Your task to perform on an android device: Open the phone app and click the voicemail tab. Image 0: 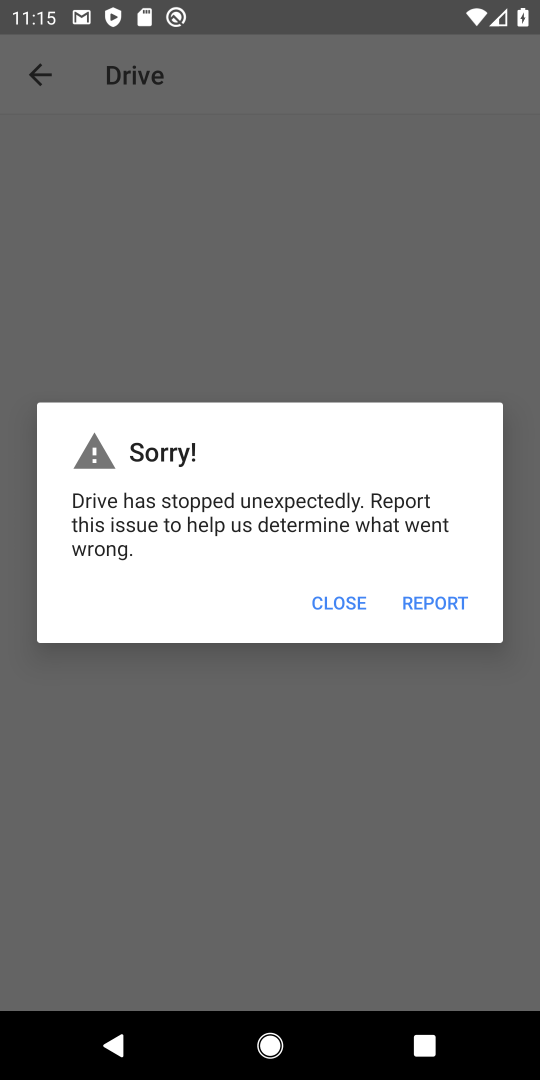
Step 0: press home button
Your task to perform on an android device: Open the phone app and click the voicemail tab. Image 1: 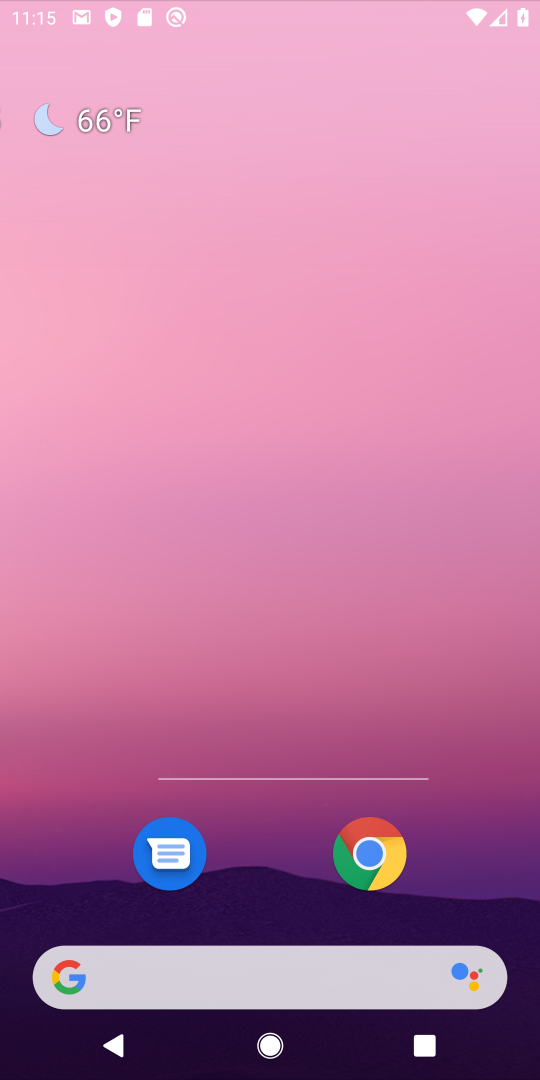
Step 1: drag from (204, 948) to (204, 319)
Your task to perform on an android device: Open the phone app and click the voicemail tab. Image 2: 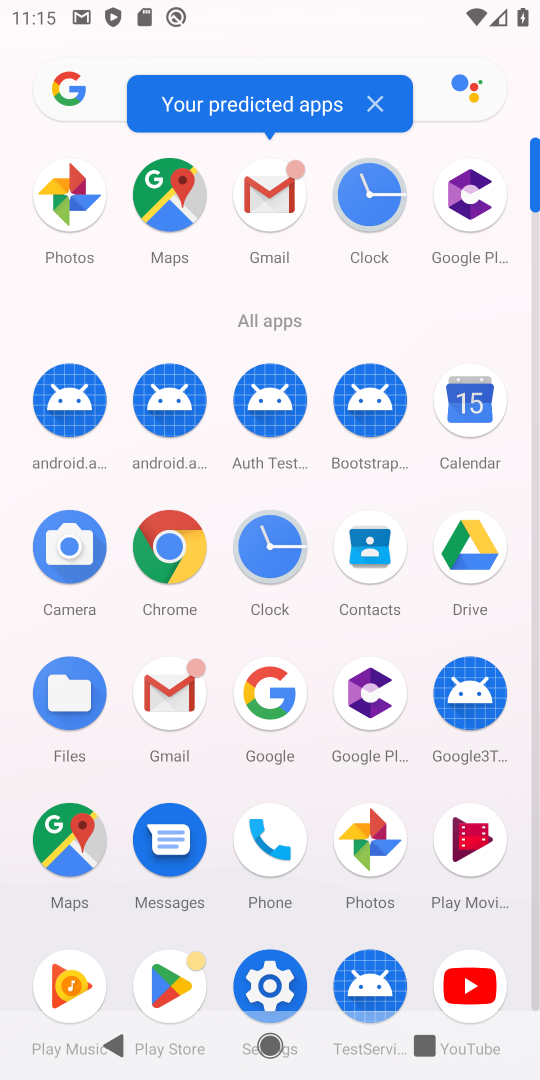
Step 2: click (267, 874)
Your task to perform on an android device: Open the phone app and click the voicemail tab. Image 3: 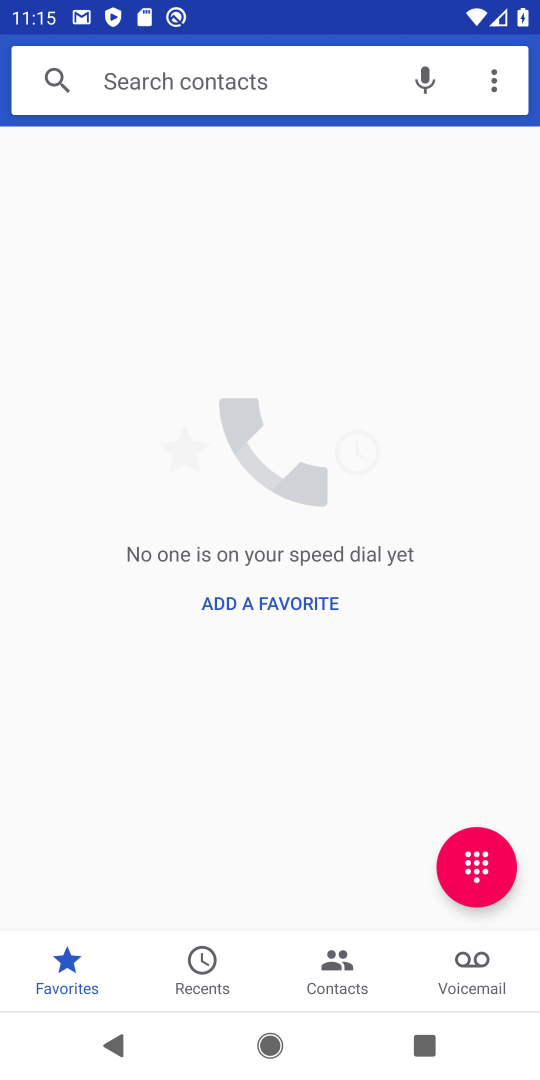
Step 3: click (446, 963)
Your task to perform on an android device: Open the phone app and click the voicemail tab. Image 4: 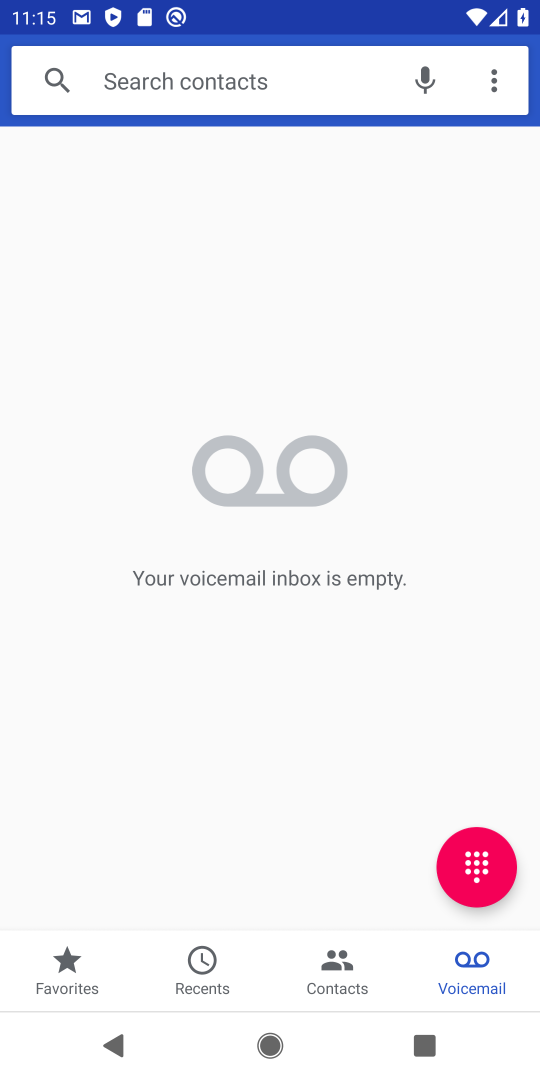
Step 4: task complete